Your task to perform on an android device: open app "ZOOM Cloud Meetings" Image 0: 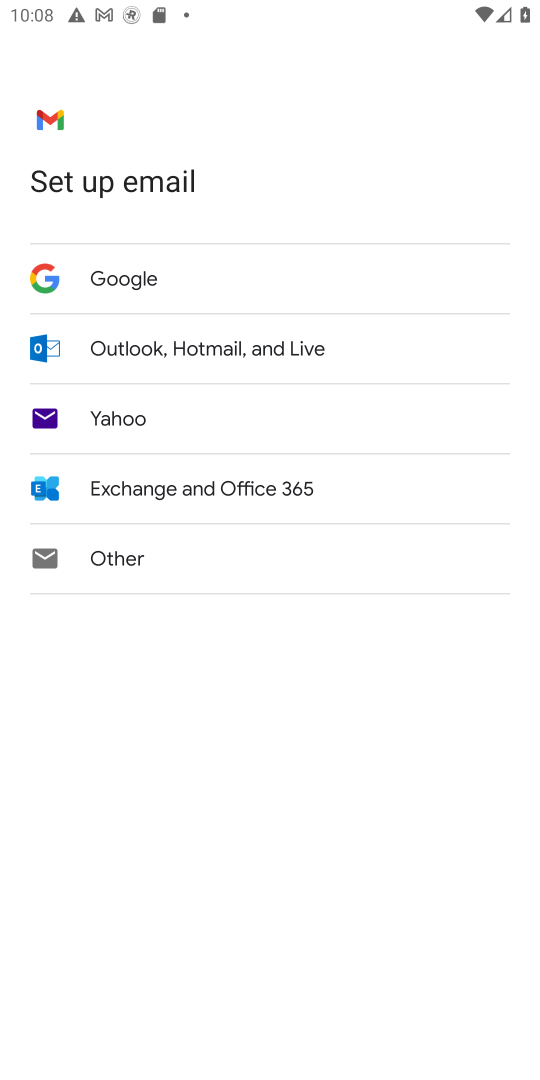
Step 0: press home button
Your task to perform on an android device: open app "ZOOM Cloud Meetings" Image 1: 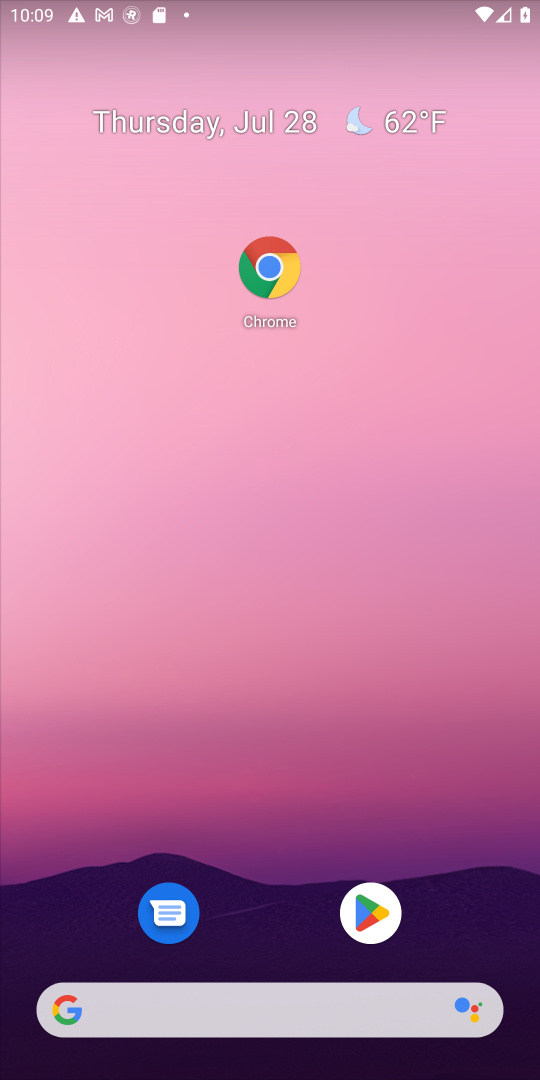
Step 1: click (372, 895)
Your task to perform on an android device: open app "ZOOM Cloud Meetings" Image 2: 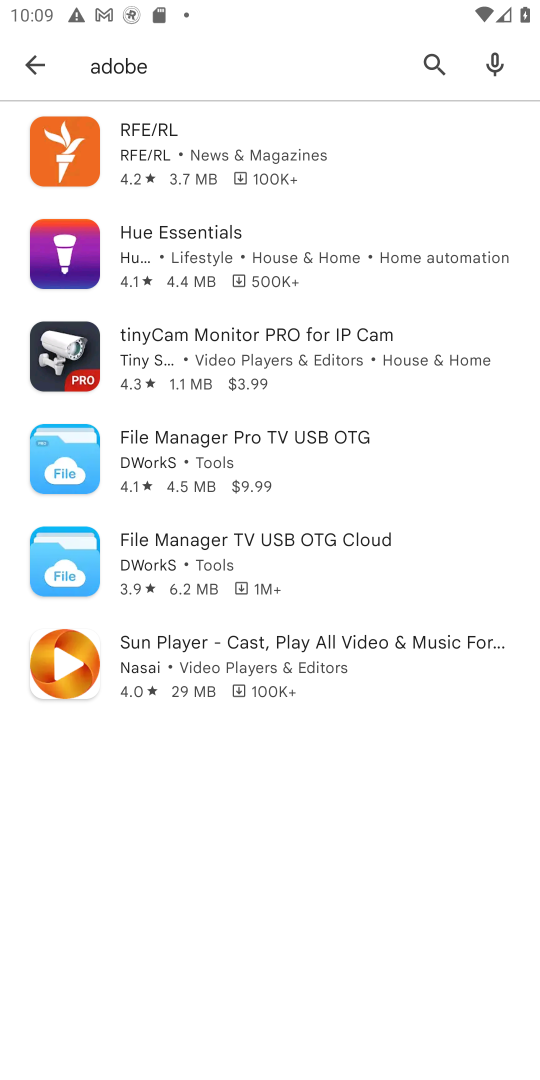
Step 2: click (428, 69)
Your task to perform on an android device: open app "ZOOM Cloud Meetings" Image 3: 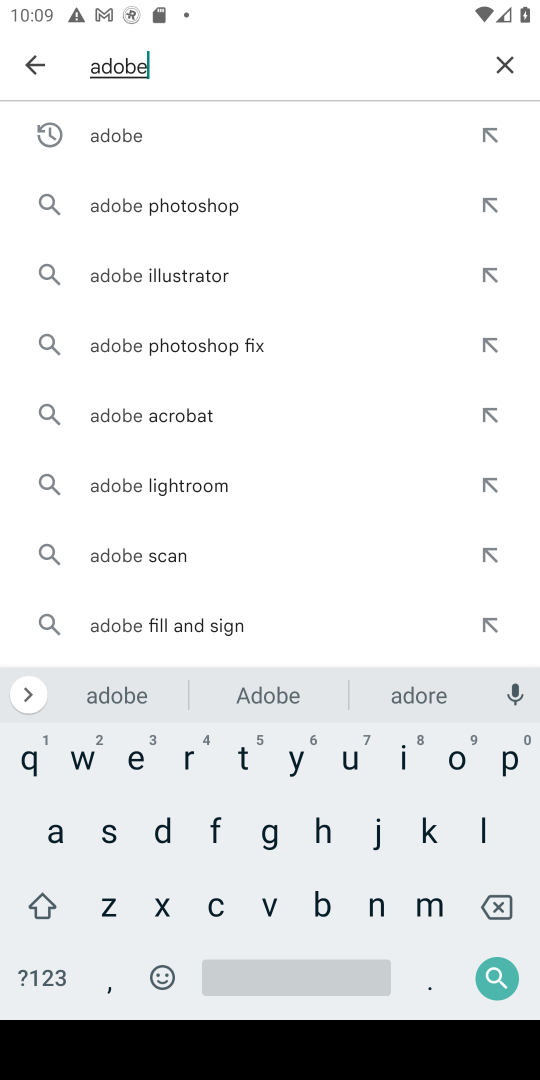
Step 3: click (503, 64)
Your task to perform on an android device: open app "ZOOM Cloud Meetings" Image 4: 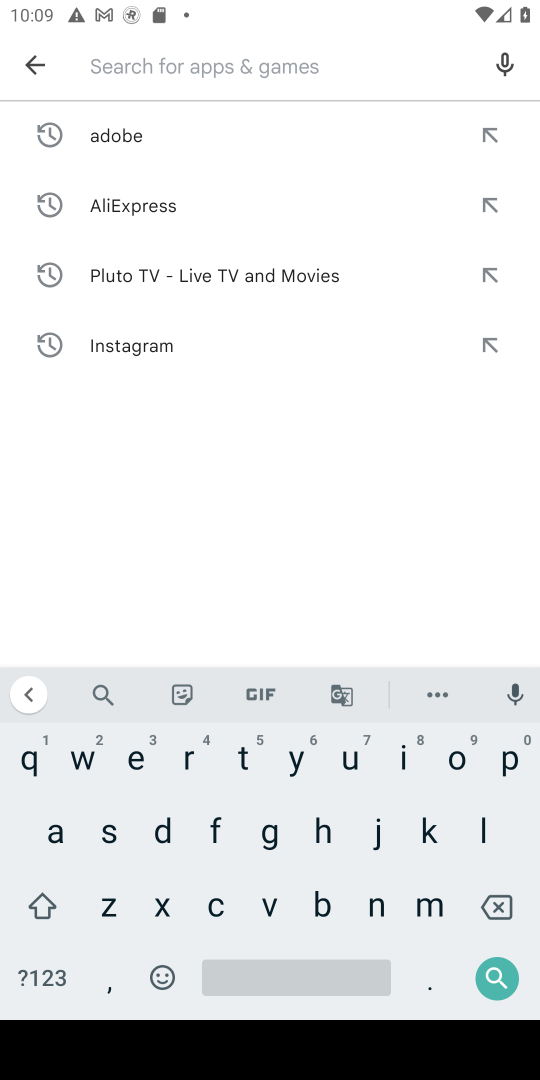
Step 4: click (111, 906)
Your task to perform on an android device: open app "ZOOM Cloud Meetings" Image 5: 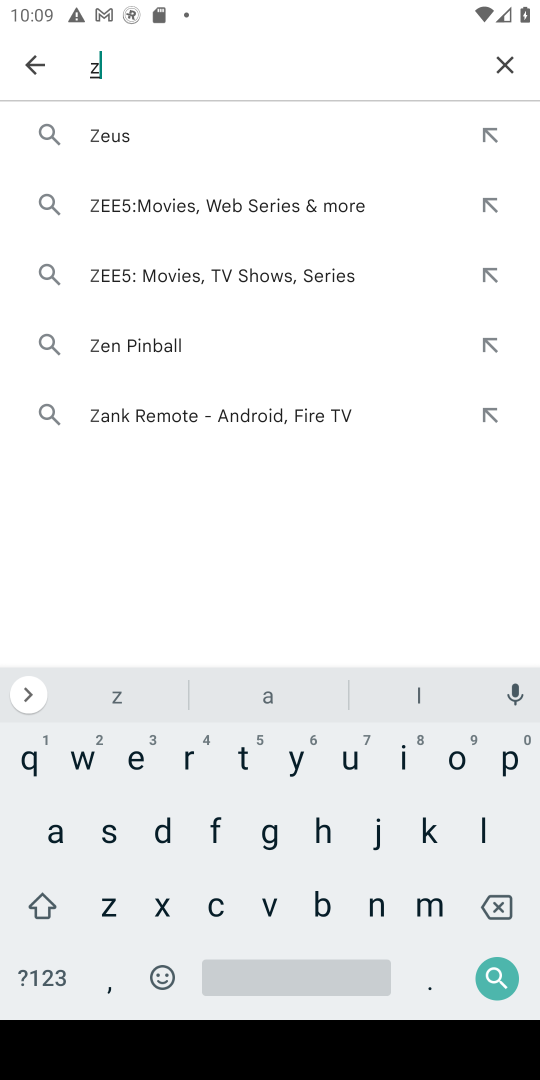
Step 5: click (450, 754)
Your task to perform on an android device: open app "ZOOM Cloud Meetings" Image 6: 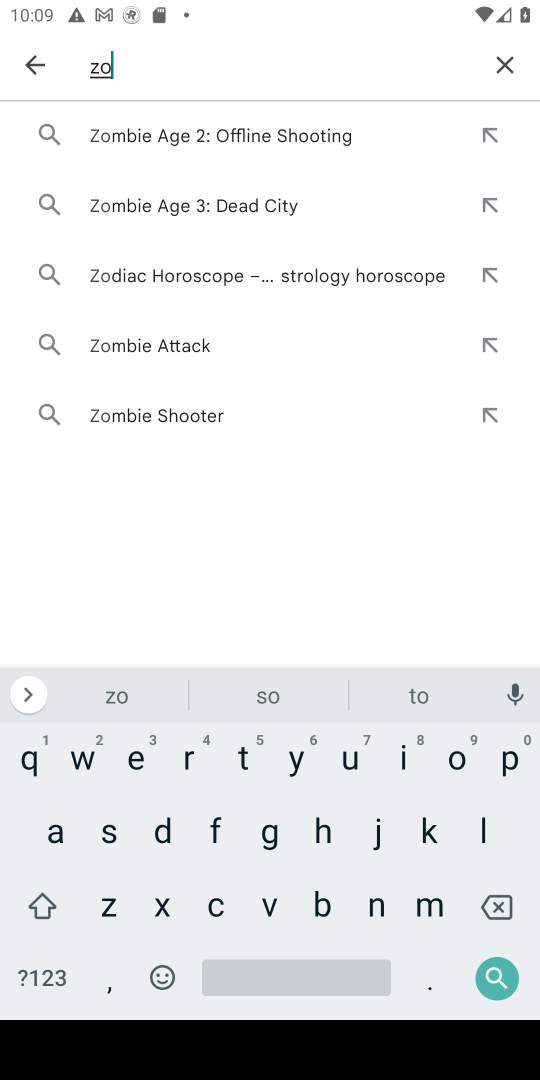
Step 6: click (450, 754)
Your task to perform on an android device: open app "ZOOM Cloud Meetings" Image 7: 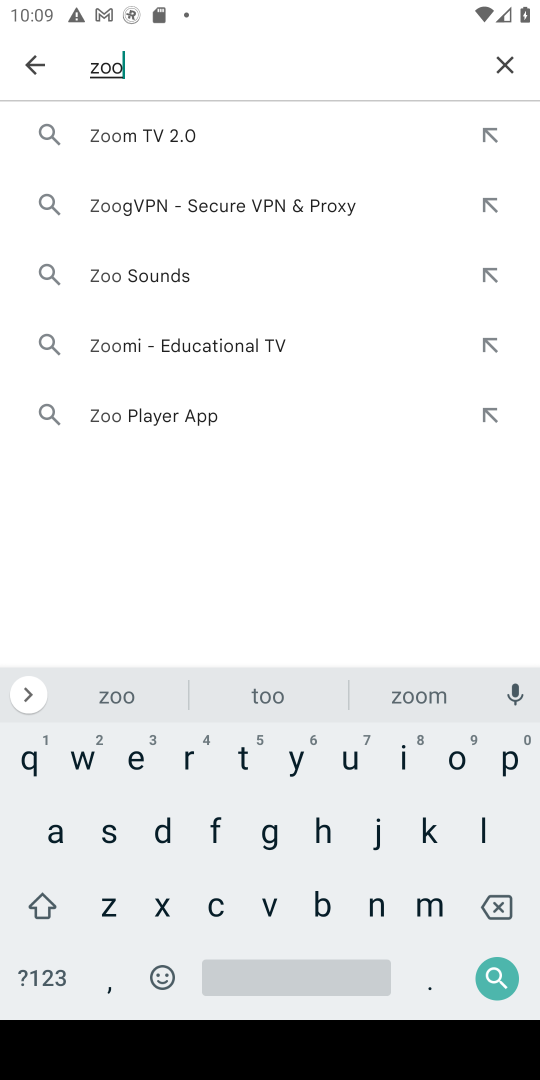
Step 7: click (431, 894)
Your task to perform on an android device: open app "ZOOM Cloud Meetings" Image 8: 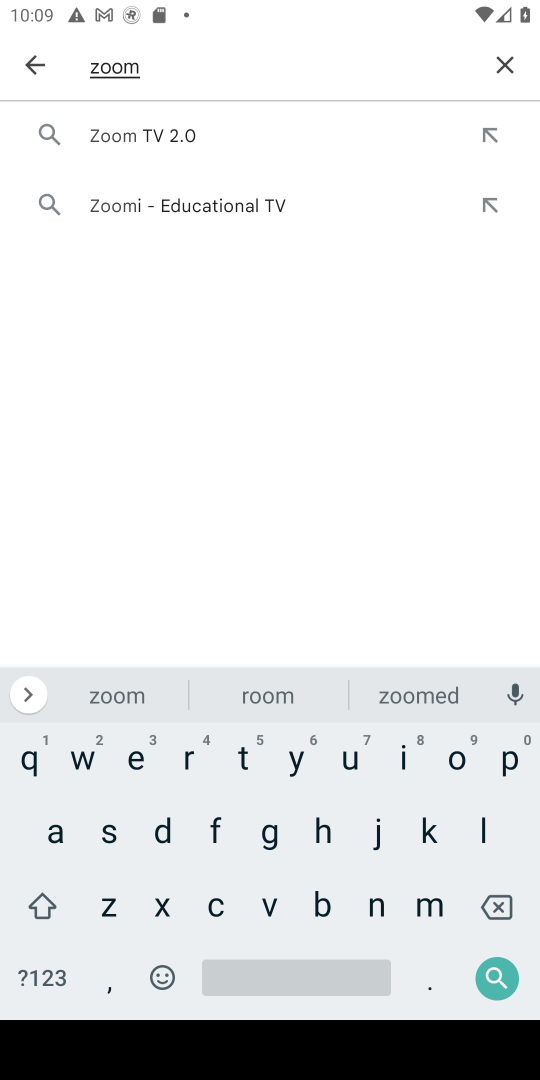
Step 8: click (497, 980)
Your task to perform on an android device: open app "ZOOM Cloud Meetings" Image 9: 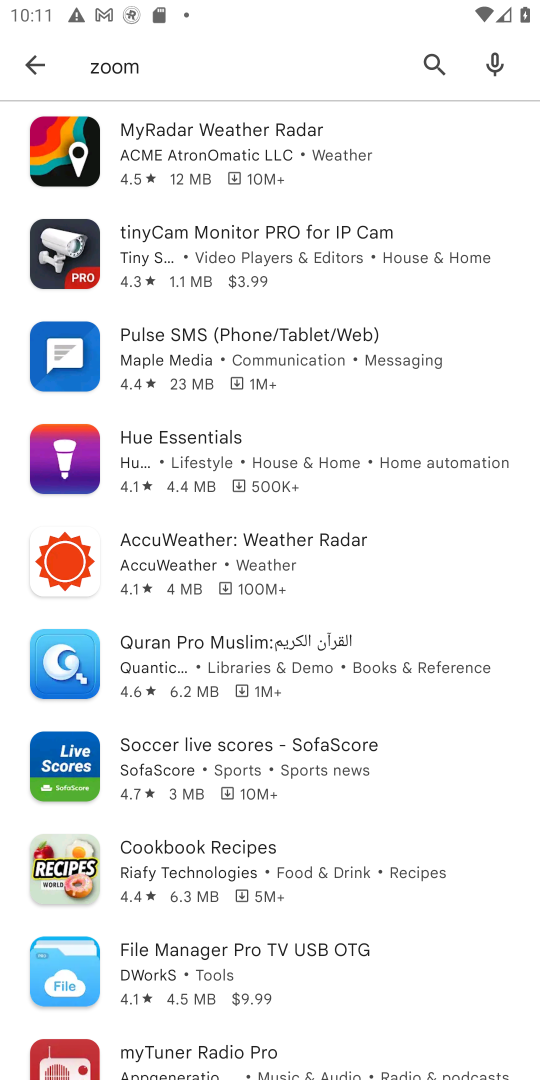
Step 9: task complete